Your task to perform on an android device: Show me recent news Image 0: 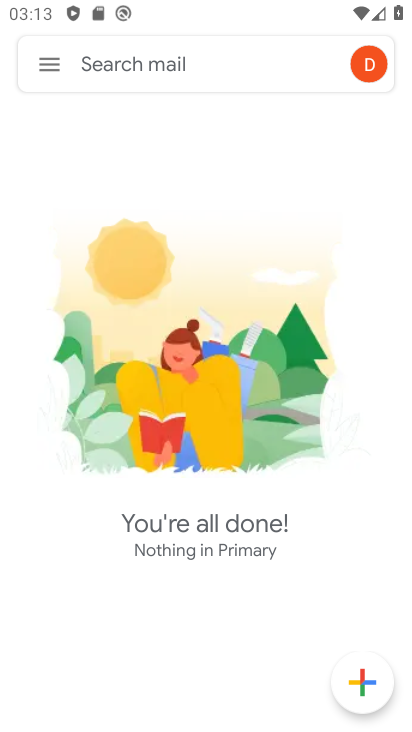
Step 0: press back button
Your task to perform on an android device: Show me recent news Image 1: 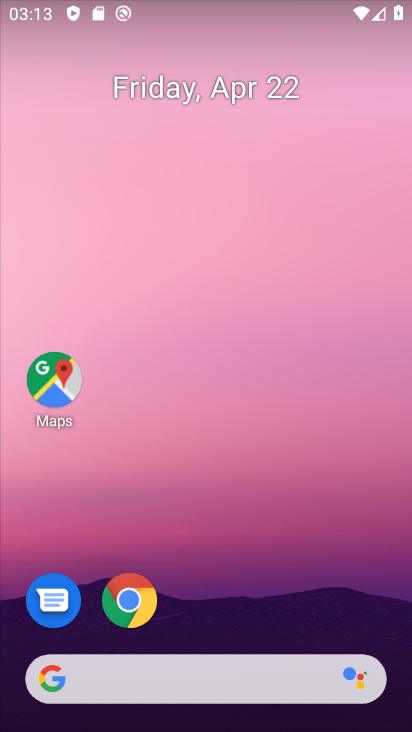
Step 1: drag from (232, 634) to (193, 237)
Your task to perform on an android device: Show me recent news Image 2: 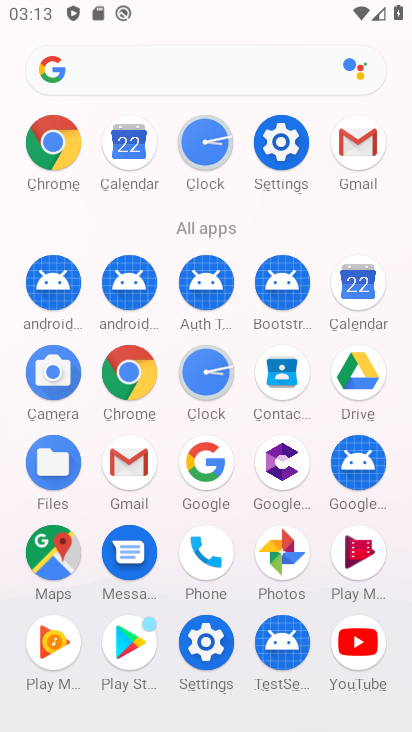
Step 2: click (176, 464)
Your task to perform on an android device: Show me recent news Image 3: 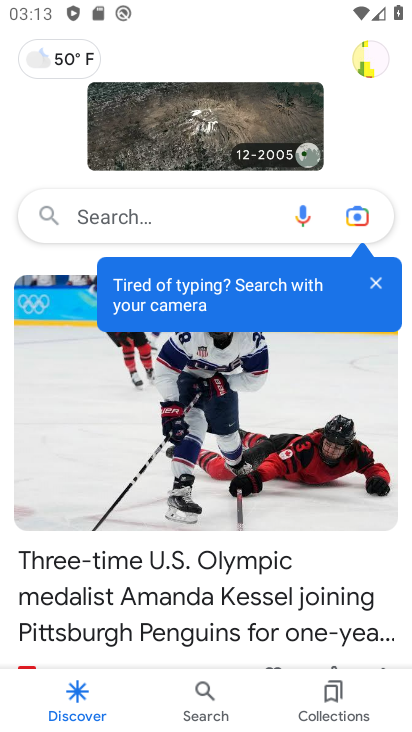
Step 3: task complete